Your task to perform on an android device: Go to Wikipedia Image 0: 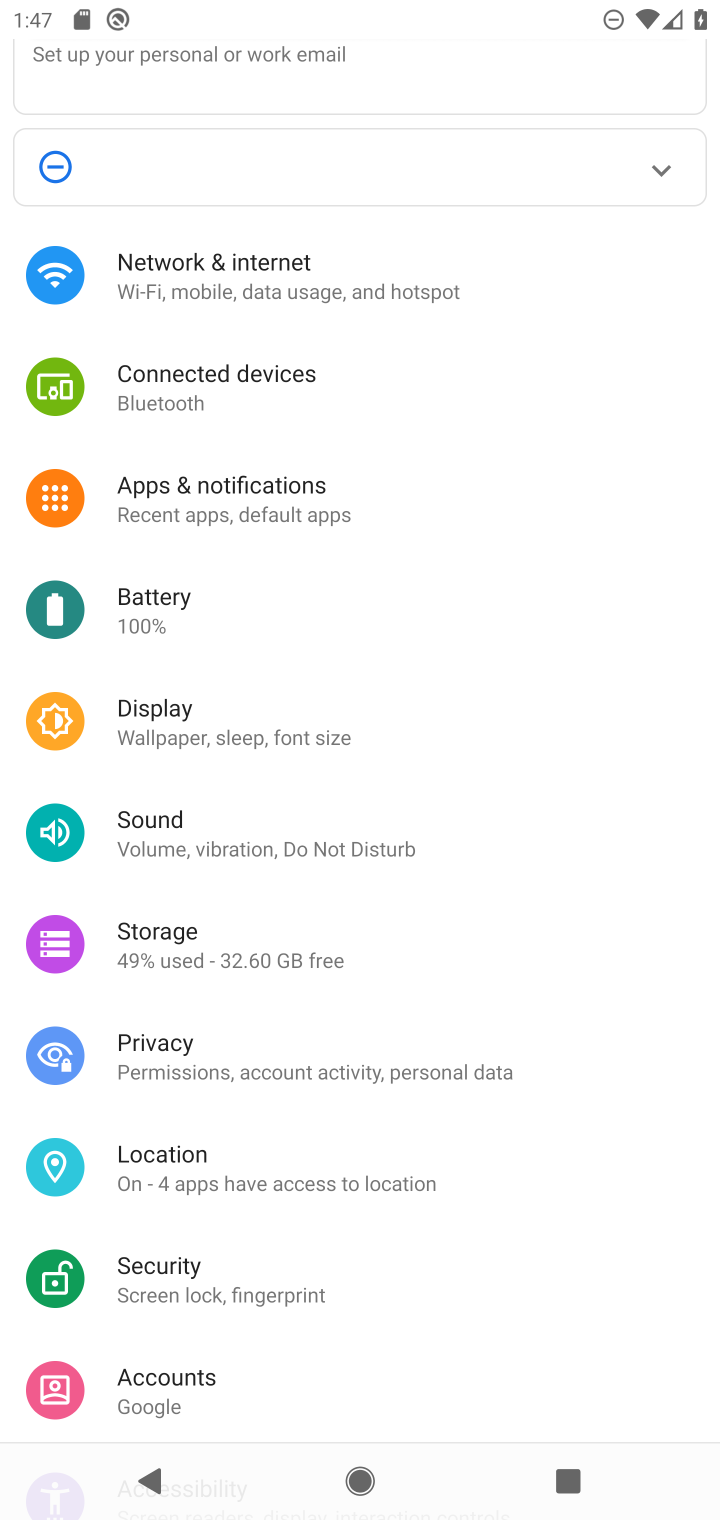
Step 0: press home button
Your task to perform on an android device: Go to Wikipedia Image 1: 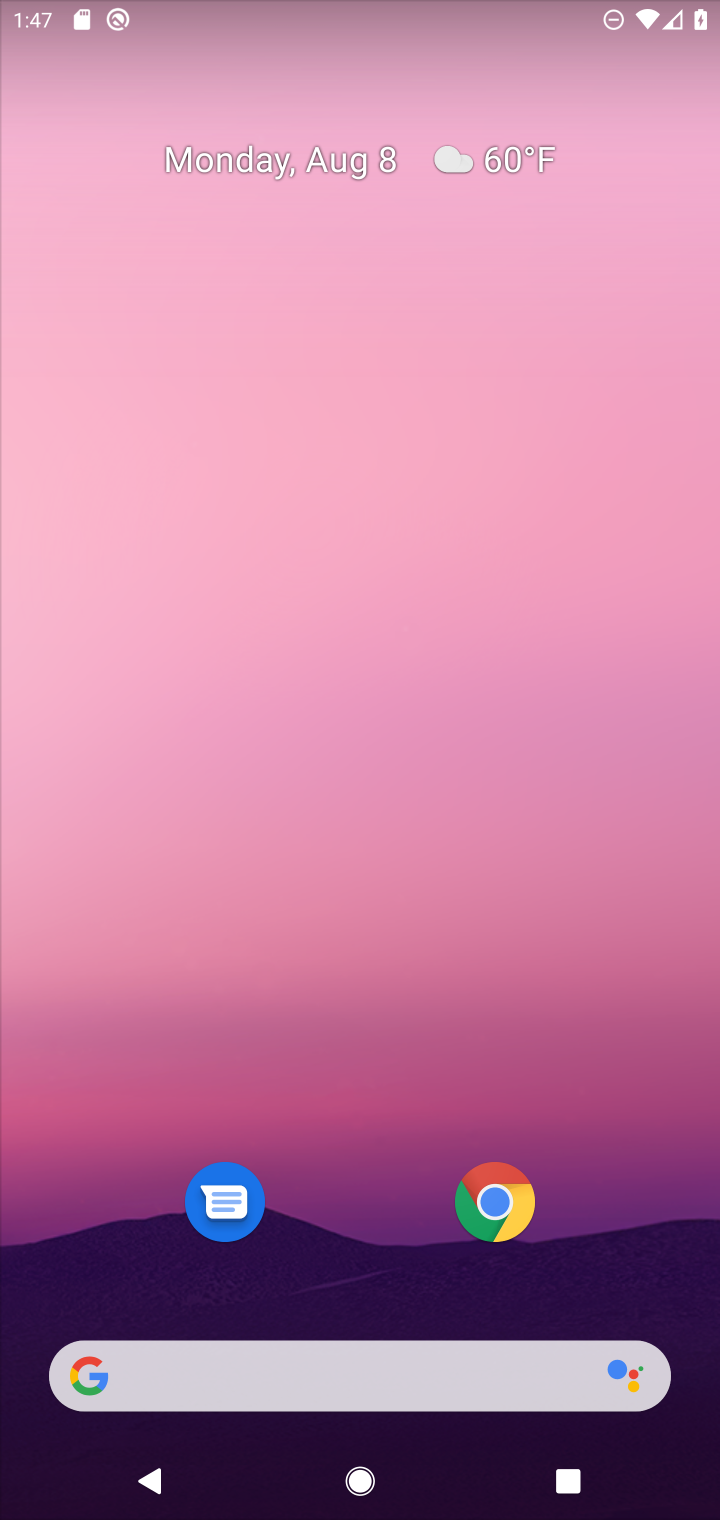
Step 1: drag from (605, 1089) to (626, 170)
Your task to perform on an android device: Go to Wikipedia Image 2: 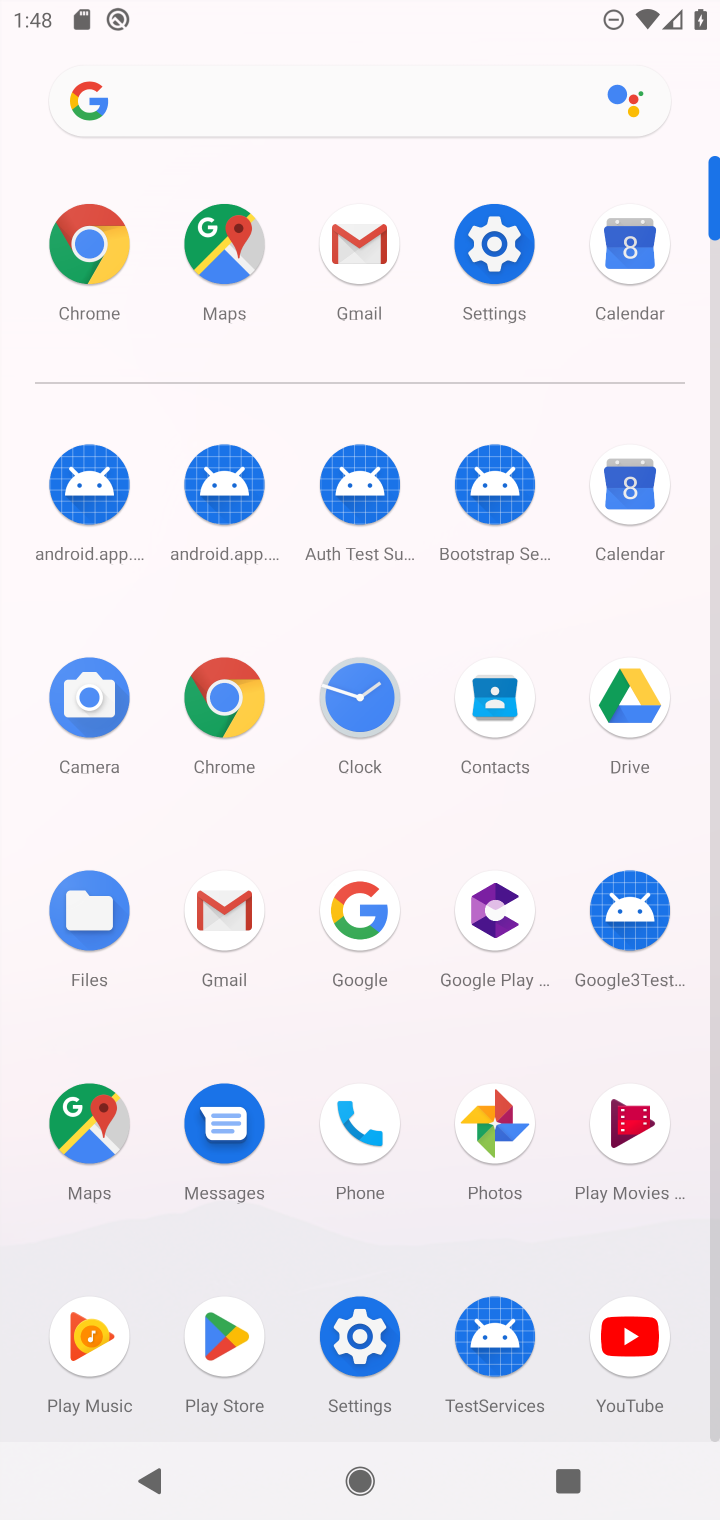
Step 2: click (216, 708)
Your task to perform on an android device: Go to Wikipedia Image 3: 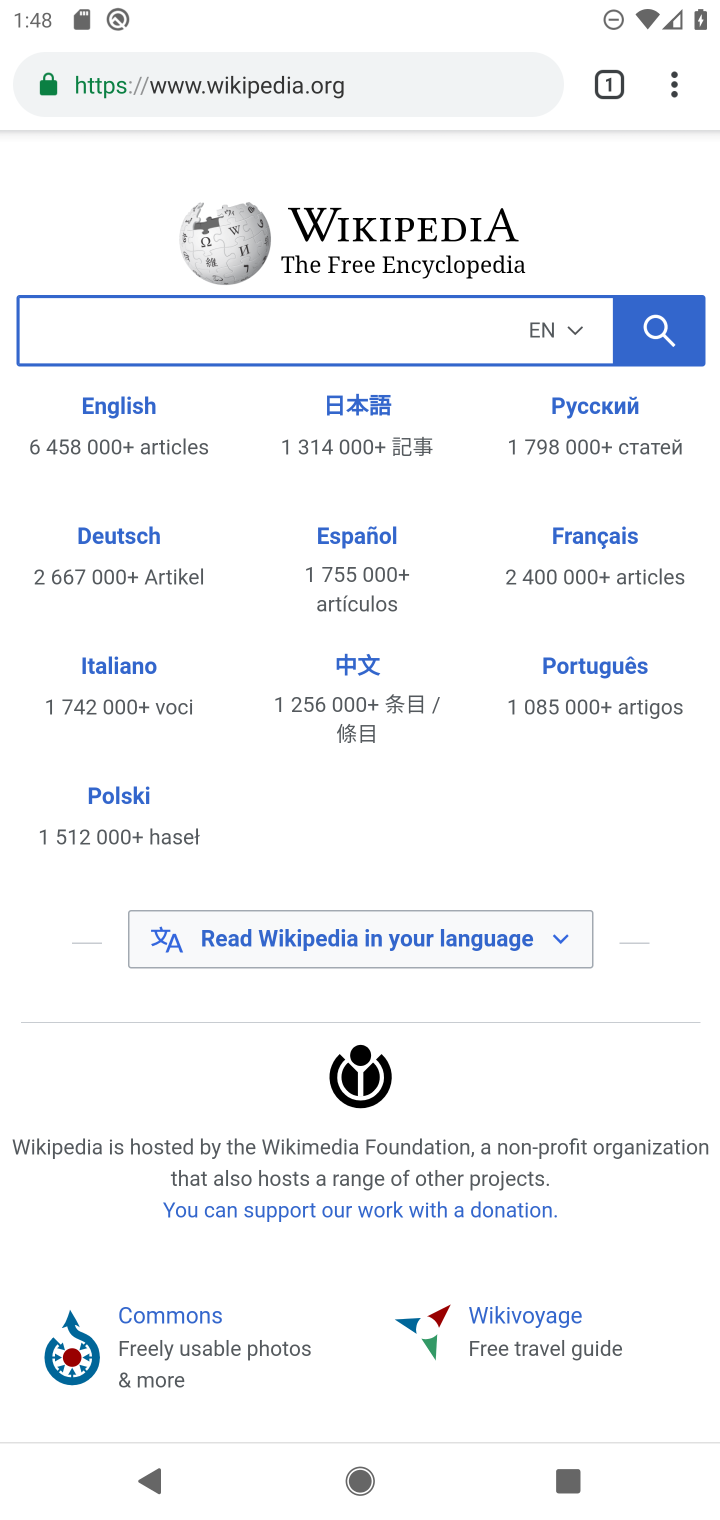
Step 3: task complete